Your task to perform on an android device: Open Chrome and go to the settings page Image 0: 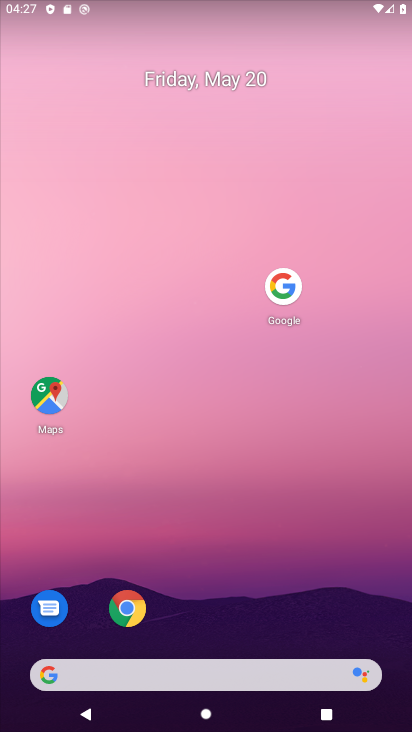
Step 0: click (121, 610)
Your task to perform on an android device: Open Chrome and go to the settings page Image 1: 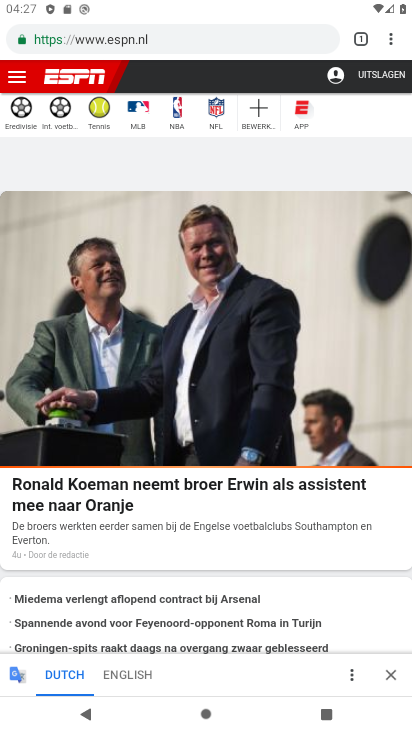
Step 1: click (387, 39)
Your task to perform on an android device: Open Chrome and go to the settings page Image 2: 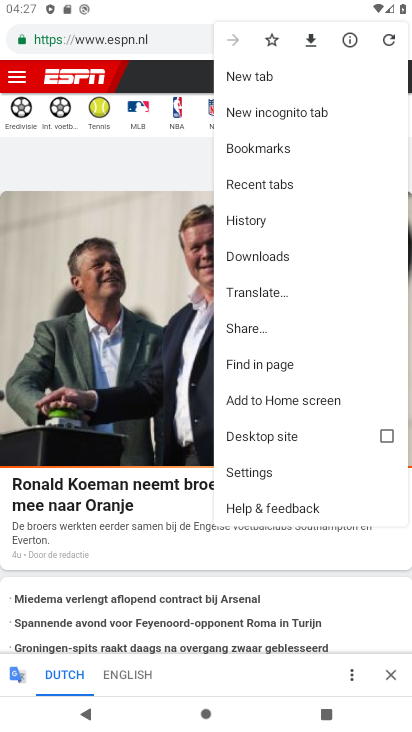
Step 2: click (257, 482)
Your task to perform on an android device: Open Chrome and go to the settings page Image 3: 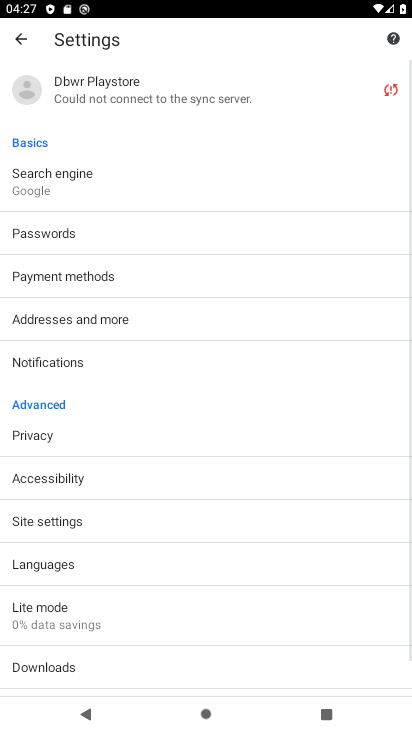
Step 3: task complete